Your task to perform on an android device: all mails in gmail Image 0: 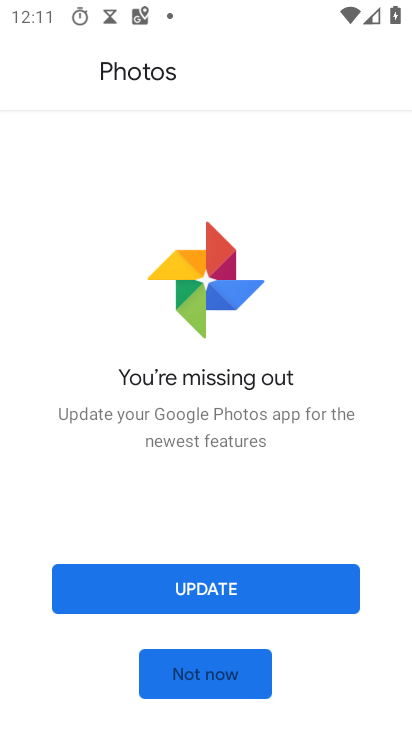
Step 0: press home button
Your task to perform on an android device: all mails in gmail Image 1: 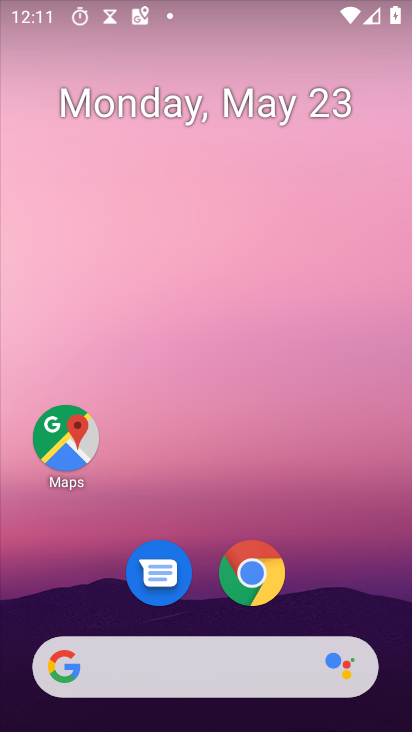
Step 1: drag from (163, 679) to (282, 184)
Your task to perform on an android device: all mails in gmail Image 2: 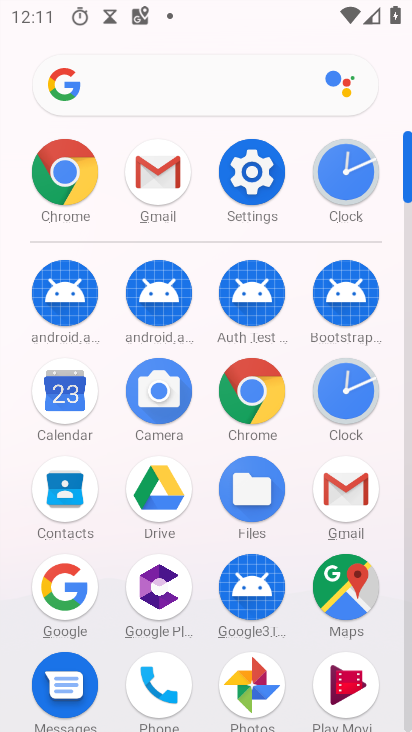
Step 2: click (167, 183)
Your task to perform on an android device: all mails in gmail Image 3: 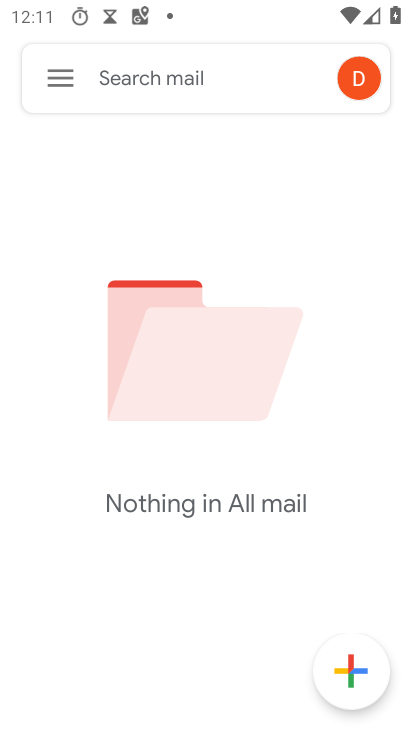
Step 3: task complete